Your task to perform on an android device: Search for Italian restaurants on Maps Image 0: 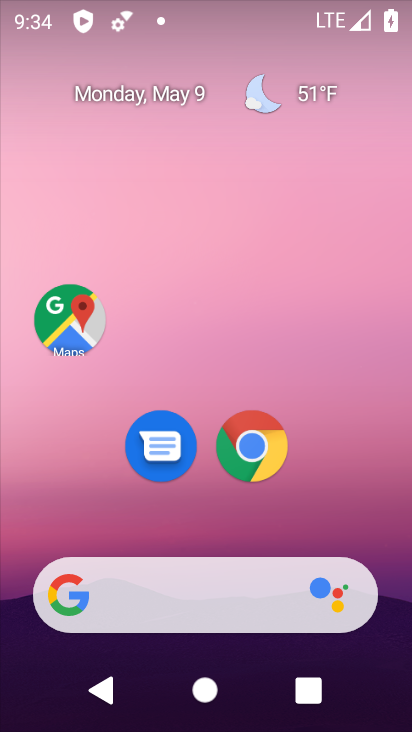
Step 0: click (84, 334)
Your task to perform on an android device: Search for Italian restaurants on Maps Image 1: 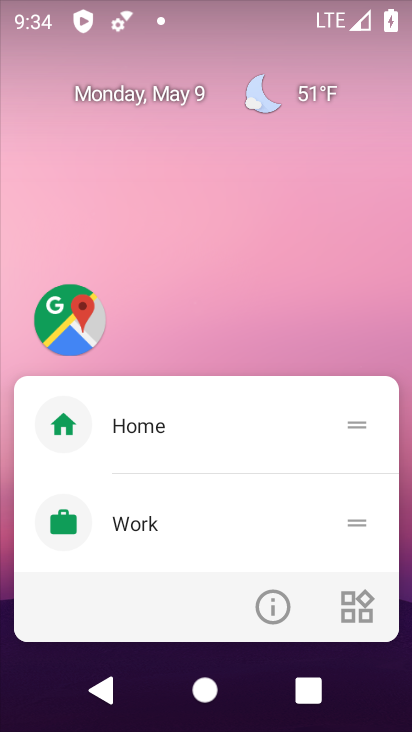
Step 1: click (69, 307)
Your task to perform on an android device: Search for Italian restaurants on Maps Image 2: 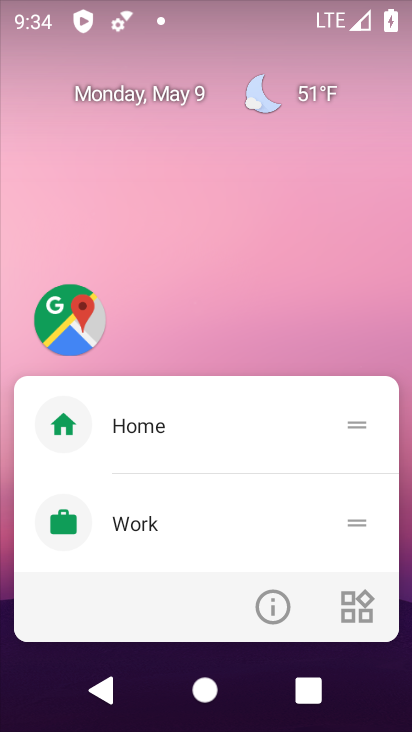
Step 2: click (70, 306)
Your task to perform on an android device: Search for Italian restaurants on Maps Image 3: 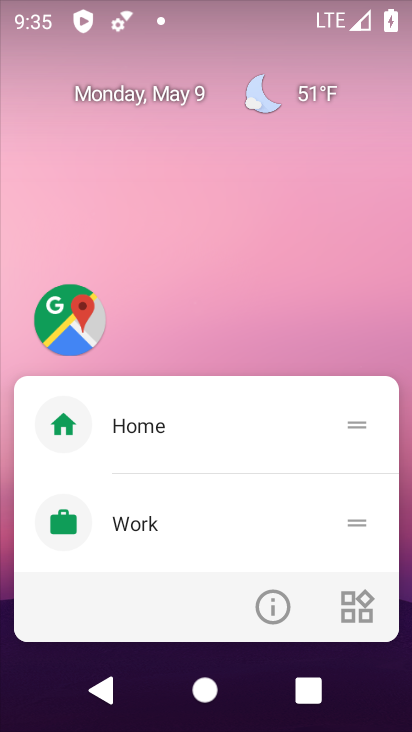
Step 3: click (75, 320)
Your task to perform on an android device: Search for Italian restaurants on Maps Image 4: 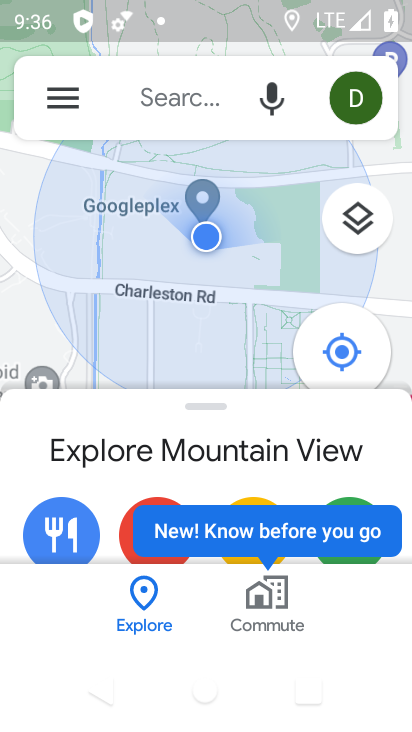
Step 4: click (183, 98)
Your task to perform on an android device: Search for Italian restaurants on Maps Image 5: 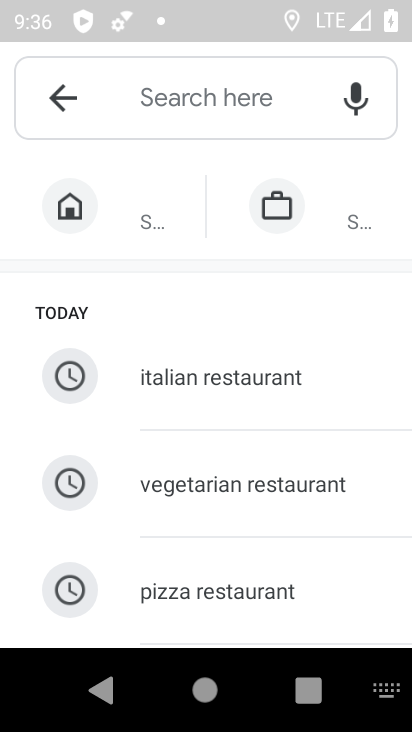
Step 5: click (249, 381)
Your task to perform on an android device: Search for Italian restaurants on Maps Image 6: 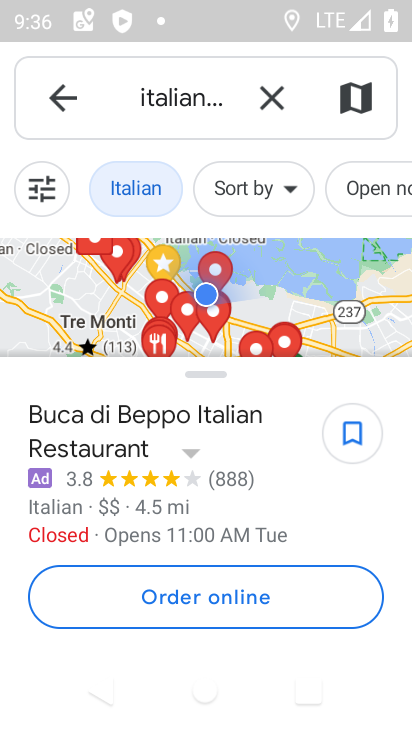
Step 6: task complete